Your task to perform on an android device: turn off data saver in the chrome app Image 0: 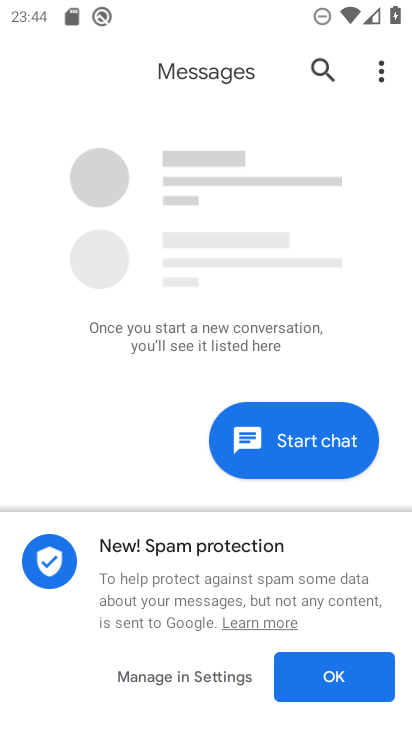
Step 0: press home button
Your task to perform on an android device: turn off data saver in the chrome app Image 1: 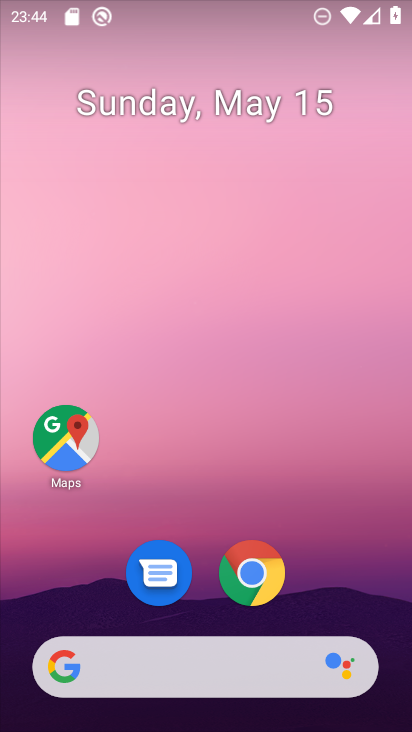
Step 1: drag from (337, 600) to (340, 118)
Your task to perform on an android device: turn off data saver in the chrome app Image 2: 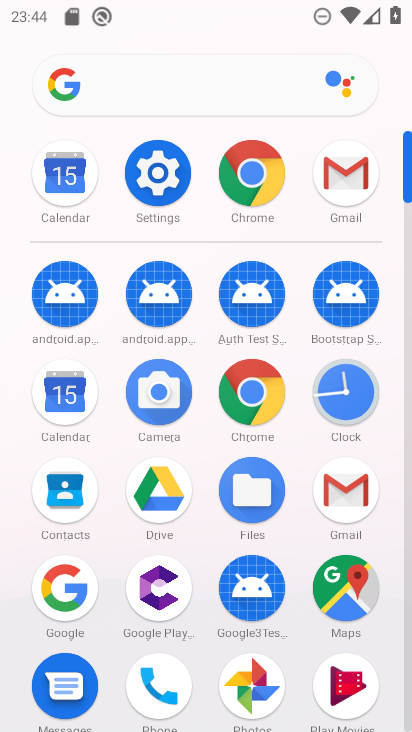
Step 2: click (250, 146)
Your task to perform on an android device: turn off data saver in the chrome app Image 3: 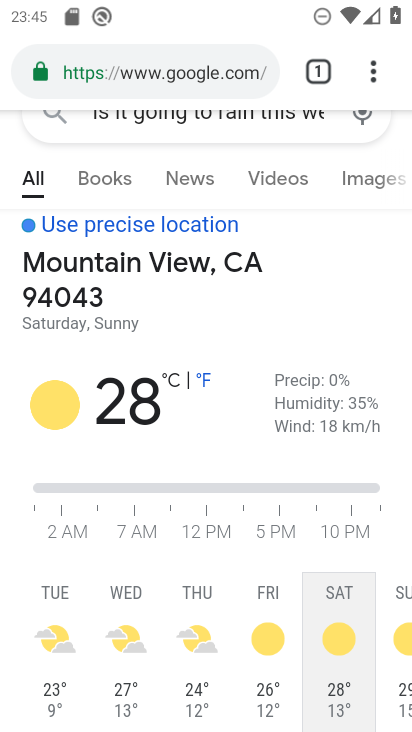
Step 3: drag from (373, 56) to (127, 575)
Your task to perform on an android device: turn off data saver in the chrome app Image 4: 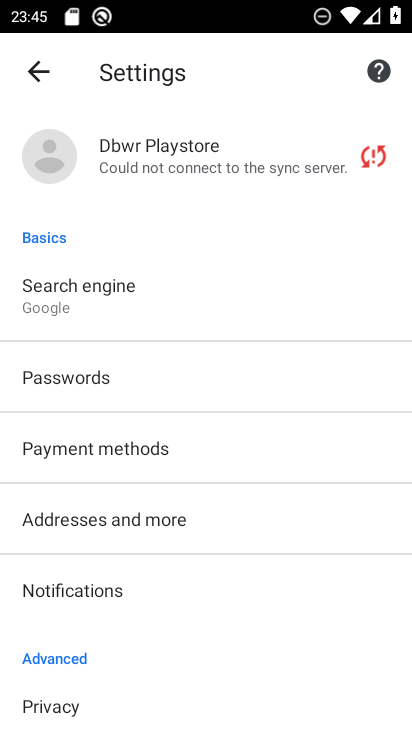
Step 4: drag from (251, 607) to (254, 385)
Your task to perform on an android device: turn off data saver in the chrome app Image 5: 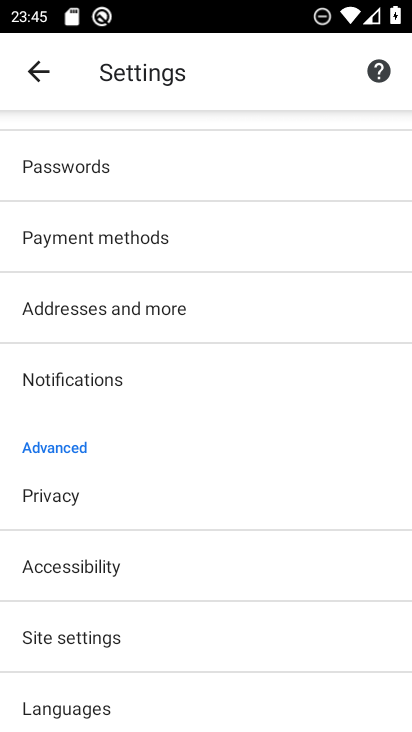
Step 5: drag from (140, 675) to (131, 485)
Your task to perform on an android device: turn off data saver in the chrome app Image 6: 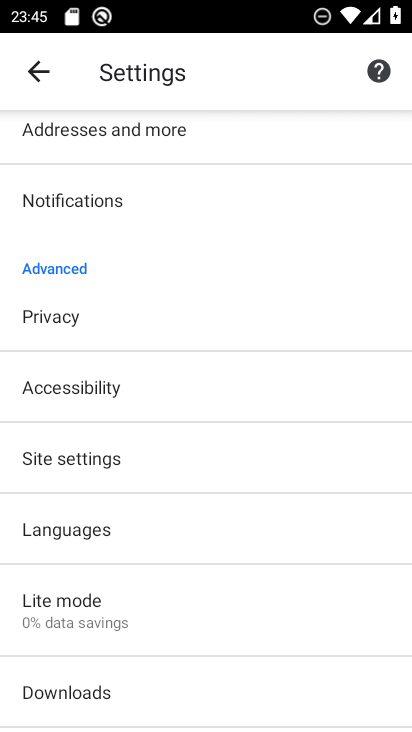
Step 6: click (85, 620)
Your task to perform on an android device: turn off data saver in the chrome app Image 7: 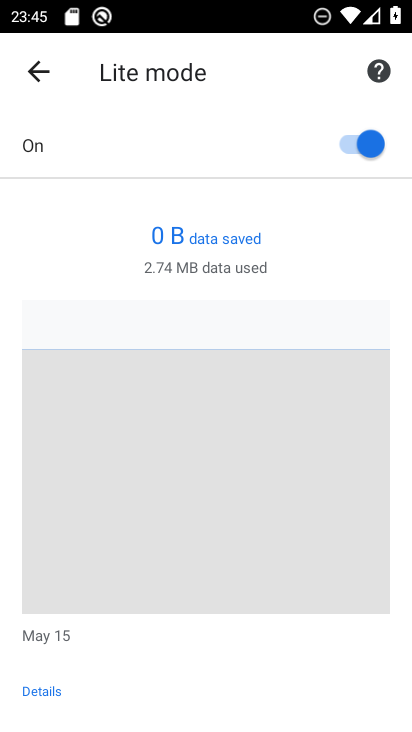
Step 7: click (350, 148)
Your task to perform on an android device: turn off data saver in the chrome app Image 8: 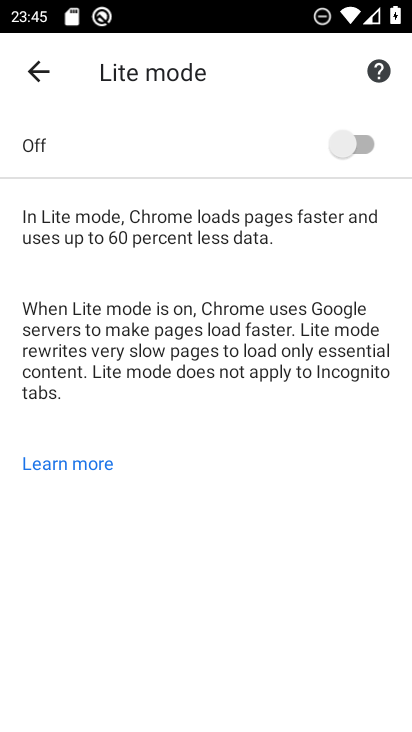
Step 8: task complete